Your task to perform on an android device: show emergency info Image 0: 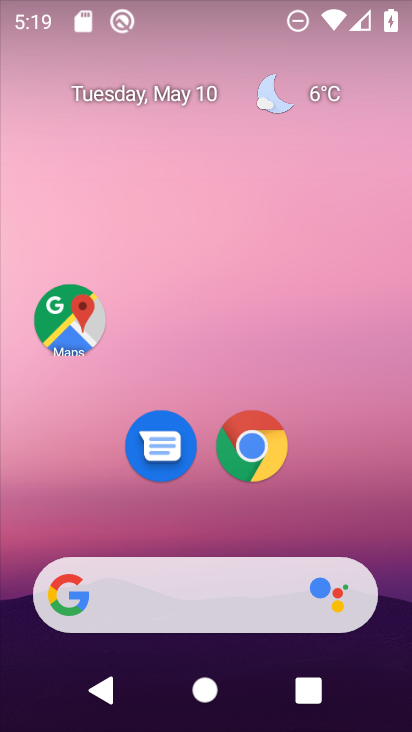
Step 0: drag from (243, 525) to (173, 97)
Your task to perform on an android device: show emergency info Image 1: 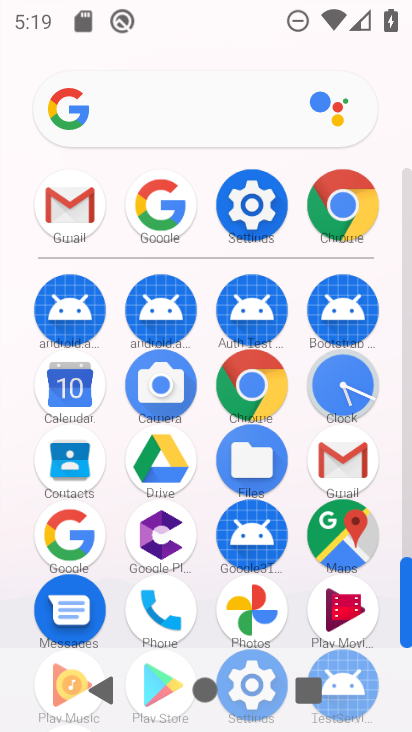
Step 1: click (253, 204)
Your task to perform on an android device: show emergency info Image 2: 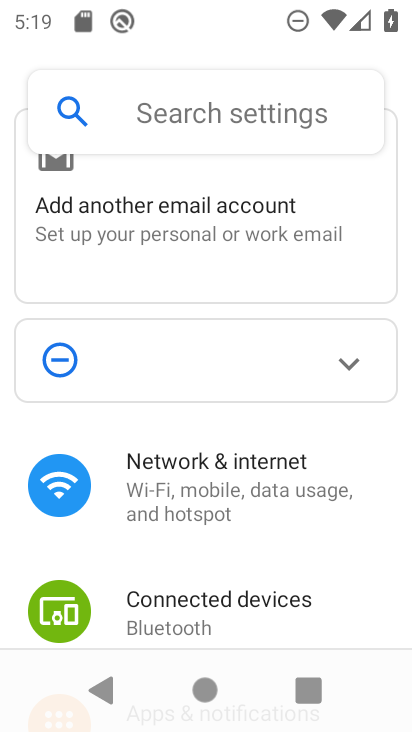
Step 2: drag from (270, 547) to (204, 112)
Your task to perform on an android device: show emergency info Image 3: 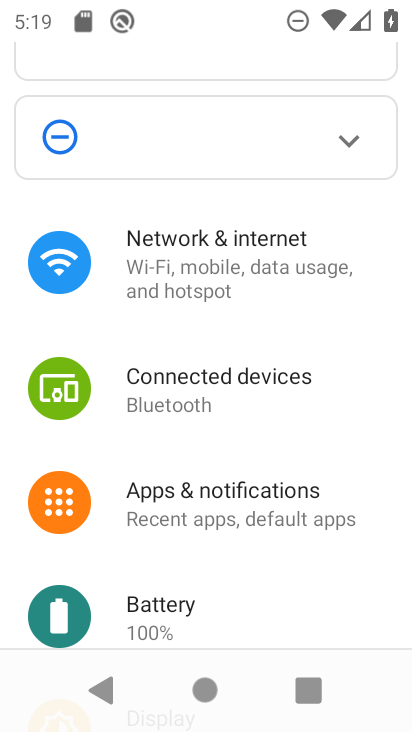
Step 3: drag from (205, 561) to (229, 123)
Your task to perform on an android device: show emergency info Image 4: 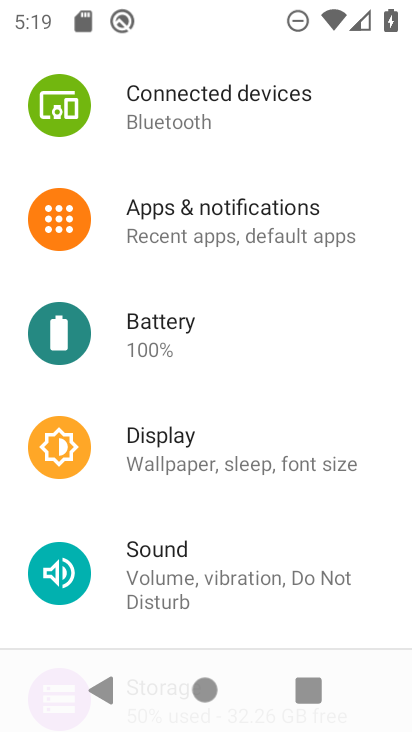
Step 4: drag from (235, 583) to (223, 107)
Your task to perform on an android device: show emergency info Image 5: 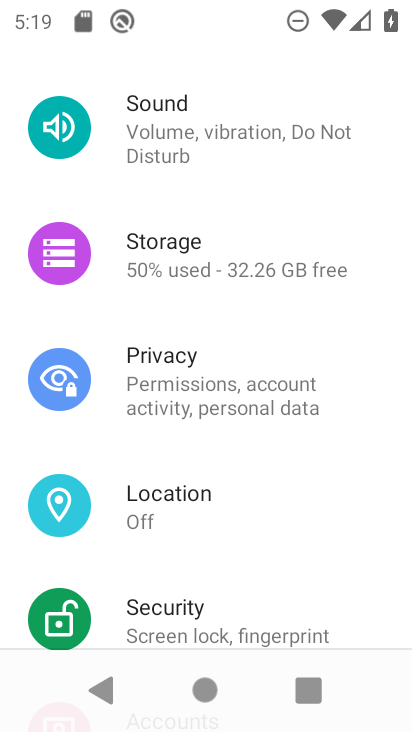
Step 5: drag from (211, 617) to (258, 109)
Your task to perform on an android device: show emergency info Image 6: 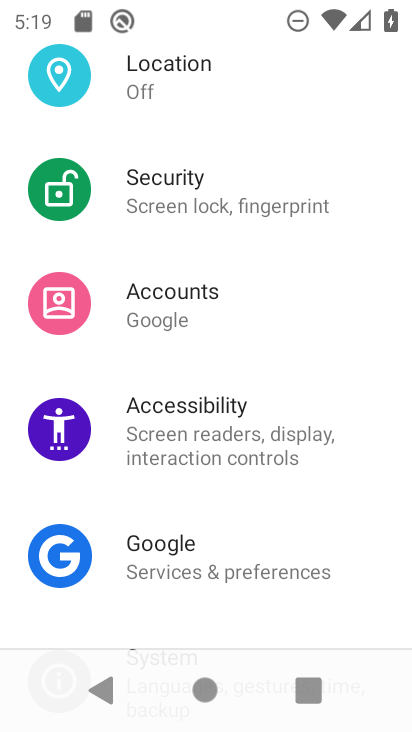
Step 6: drag from (250, 569) to (239, 127)
Your task to perform on an android device: show emergency info Image 7: 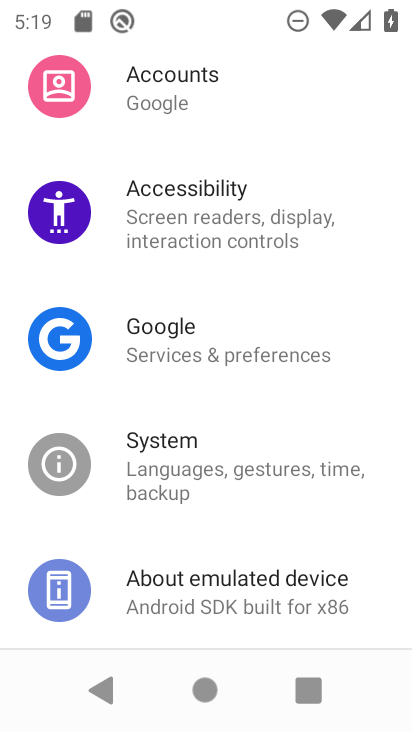
Step 7: click (242, 567)
Your task to perform on an android device: show emergency info Image 8: 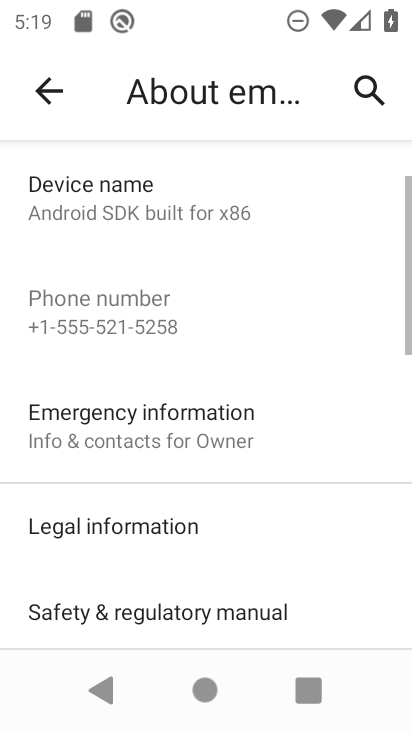
Step 8: click (198, 422)
Your task to perform on an android device: show emergency info Image 9: 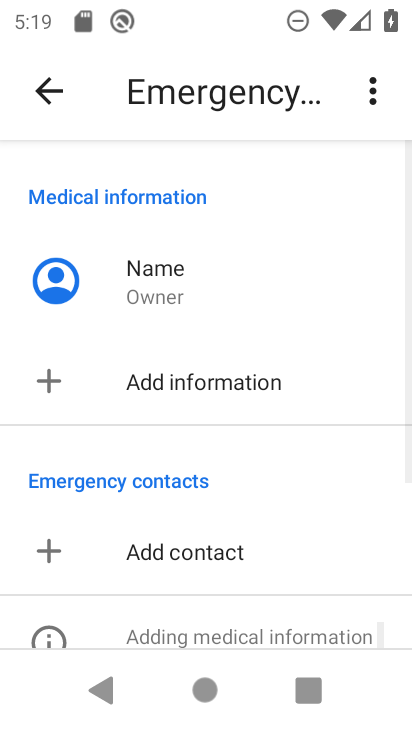
Step 9: task complete